Your task to perform on an android device: Go to ESPN.com Image 0: 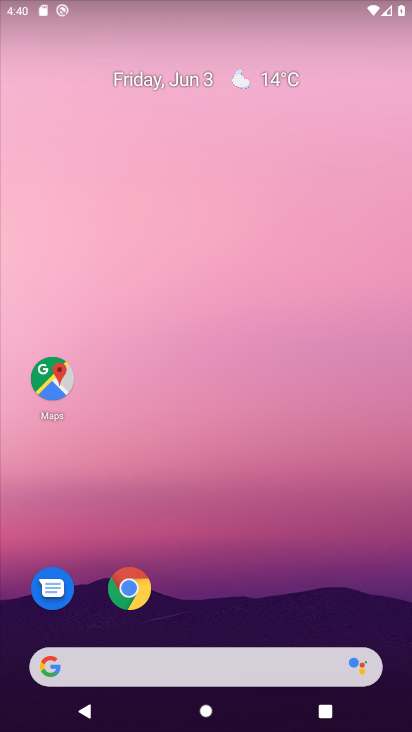
Step 0: drag from (281, 383) to (243, 18)
Your task to perform on an android device: Go to ESPN.com Image 1: 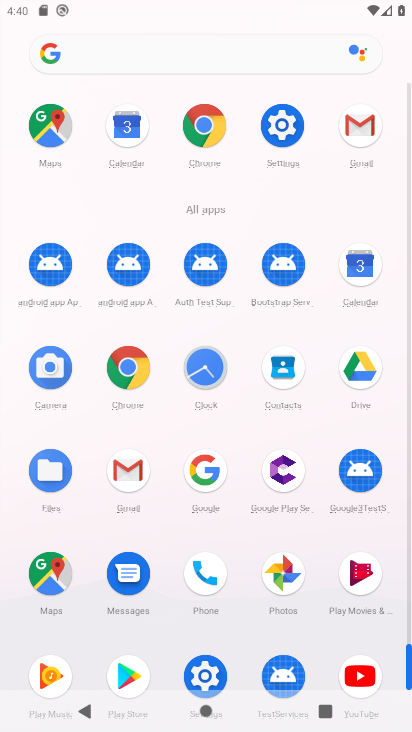
Step 1: drag from (1, 515) to (5, 206)
Your task to perform on an android device: Go to ESPN.com Image 2: 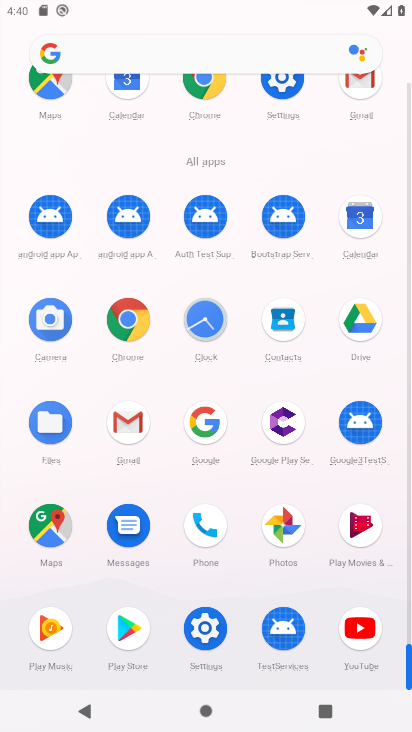
Step 2: click (127, 318)
Your task to perform on an android device: Go to ESPN.com Image 3: 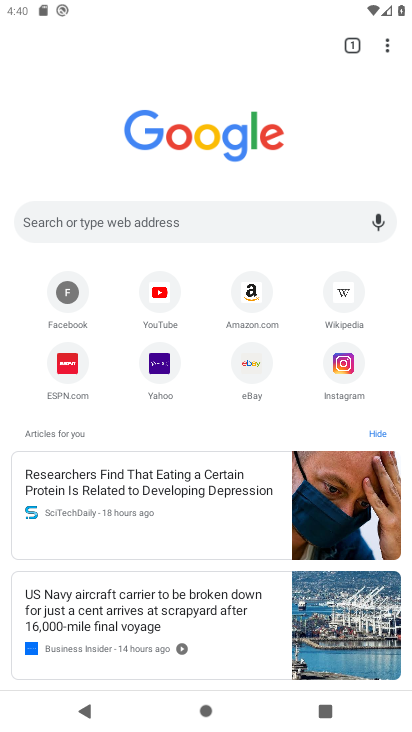
Step 3: click (57, 365)
Your task to perform on an android device: Go to ESPN.com Image 4: 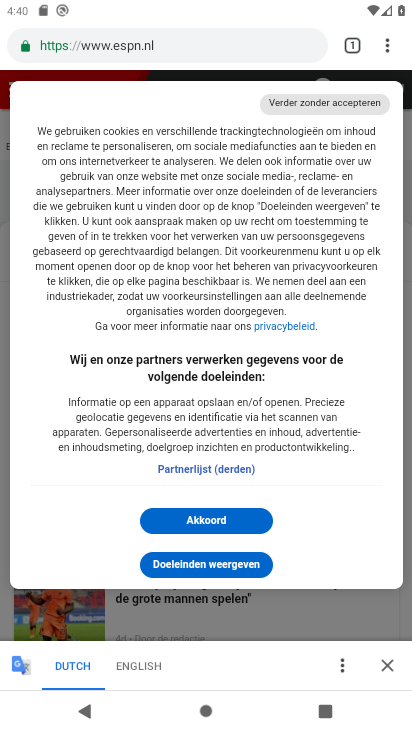
Step 4: click (205, 523)
Your task to perform on an android device: Go to ESPN.com Image 5: 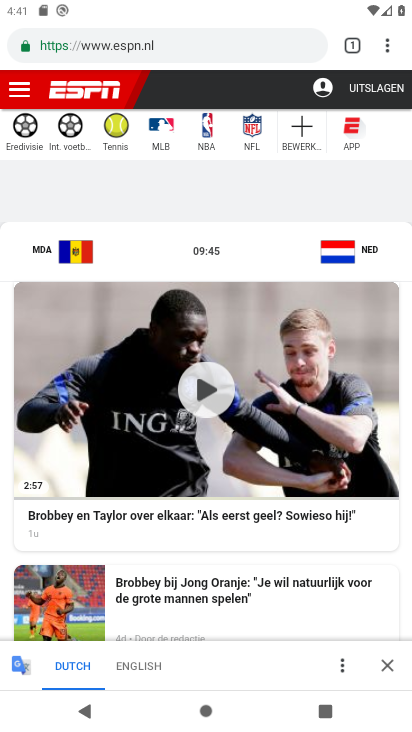
Step 5: task complete